Your task to perform on an android device: allow notifications from all sites in the chrome app Image 0: 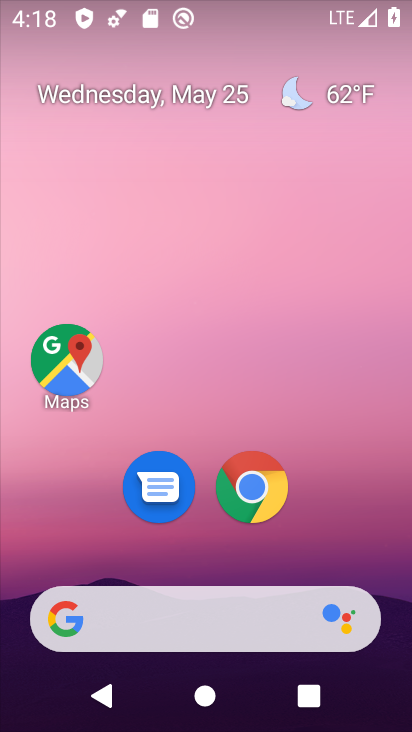
Step 0: drag from (367, 551) to (339, 43)
Your task to perform on an android device: allow notifications from all sites in the chrome app Image 1: 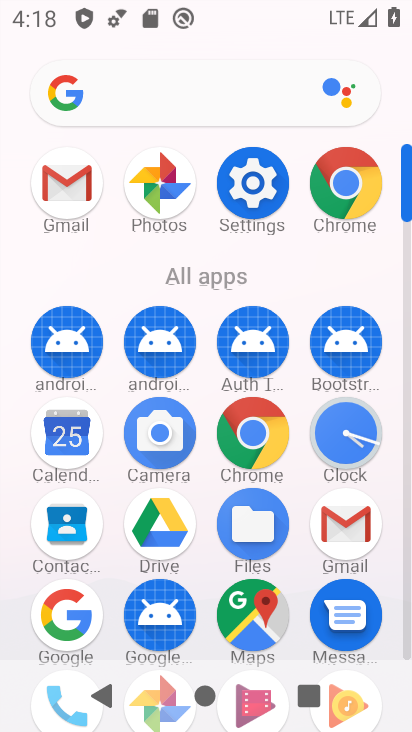
Step 1: click (343, 200)
Your task to perform on an android device: allow notifications from all sites in the chrome app Image 2: 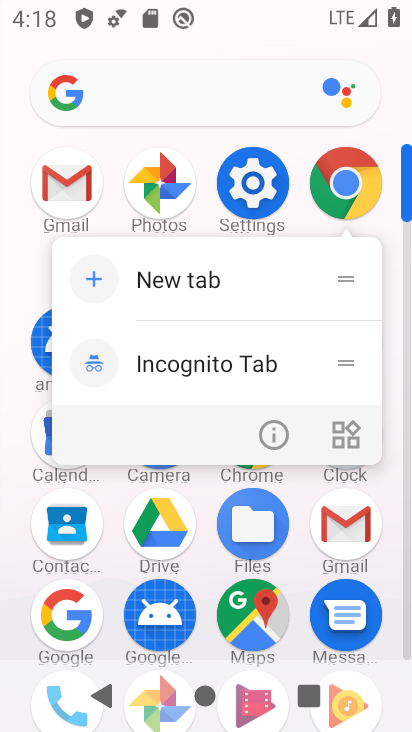
Step 2: click (290, 432)
Your task to perform on an android device: allow notifications from all sites in the chrome app Image 3: 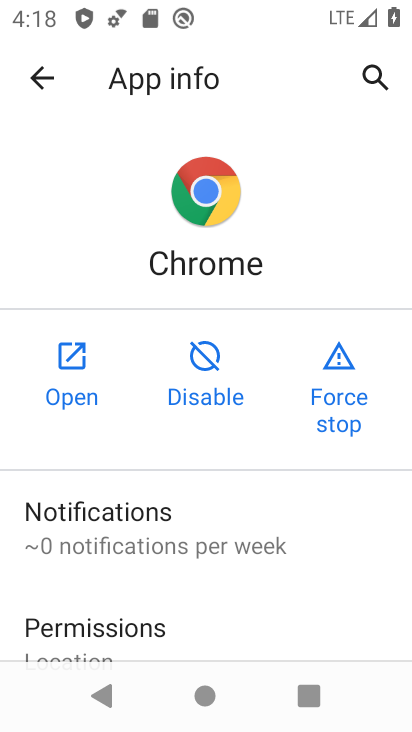
Step 3: click (185, 537)
Your task to perform on an android device: allow notifications from all sites in the chrome app Image 4: 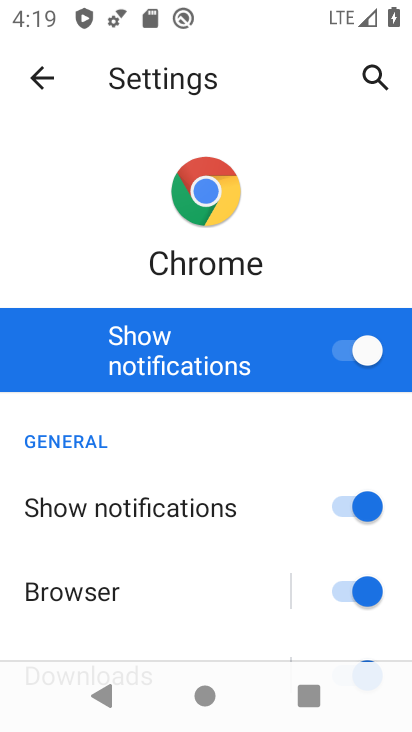
Step 4: task complete